Your task to perform on an android device: Turn off the flashlight Image 0: 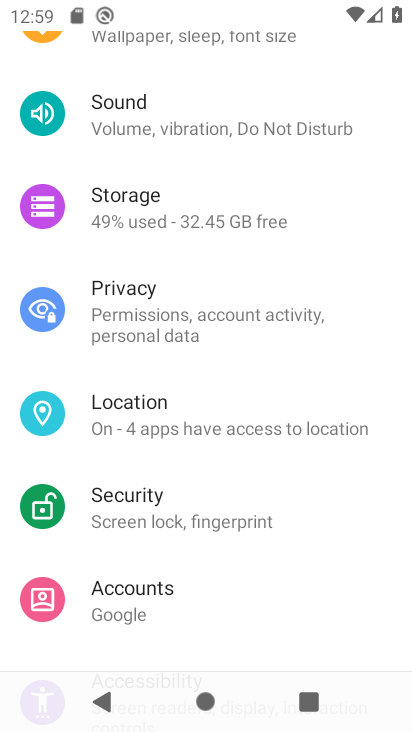
Step 0: press home button
Your task to perform on an android device: Turn off the flashlight Image 1: 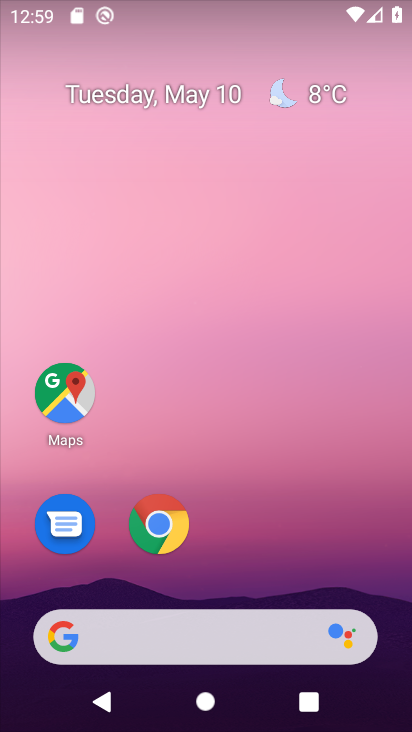
Step 1: drag from (279, 464) to (258, 36)
Your task to perform on an android device: Turn off the flashlight Image 2: 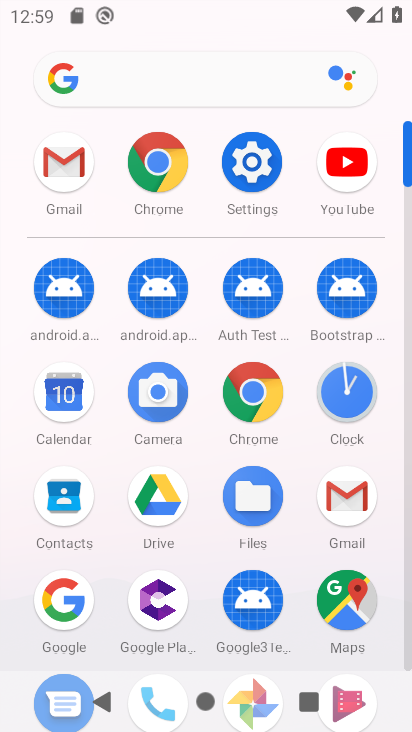
Step 2: click (259, 157)
Your task to perform on an android device: Turn off the flashlight Image 3: 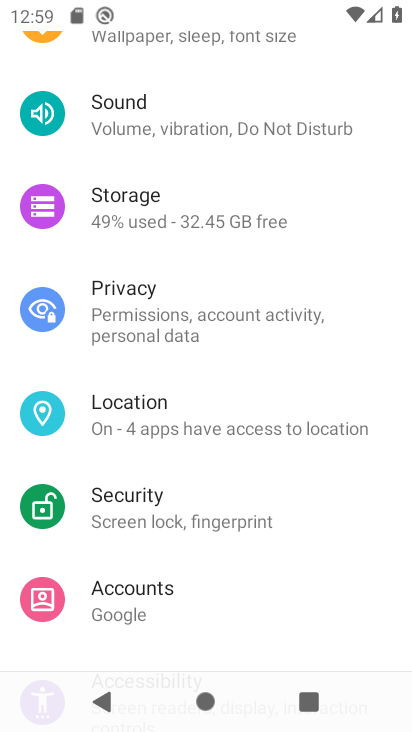
Step 3: drag from (239, 126) to (281, 598)
Your task to perform on an android device: Turn off the flashlight Image 4: 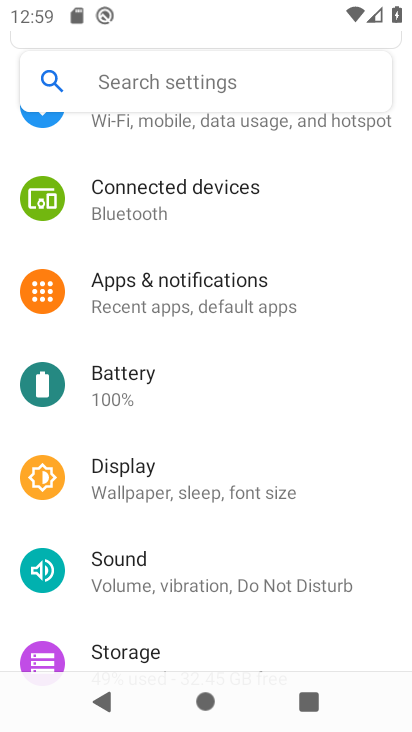
Step 4: drag from (208, 233) to (221, 558)
Your task to perform on an android device: Turn off the flashlight Image 5: 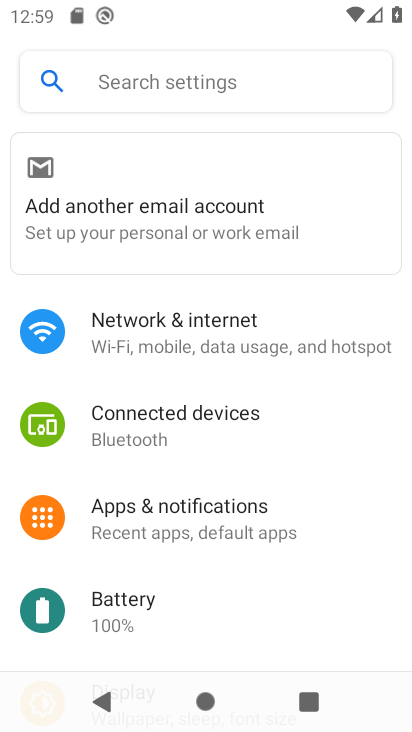
Step 5: click (217, 78)
Your task to perform on an android device: Turn off the flashlight Image 6: 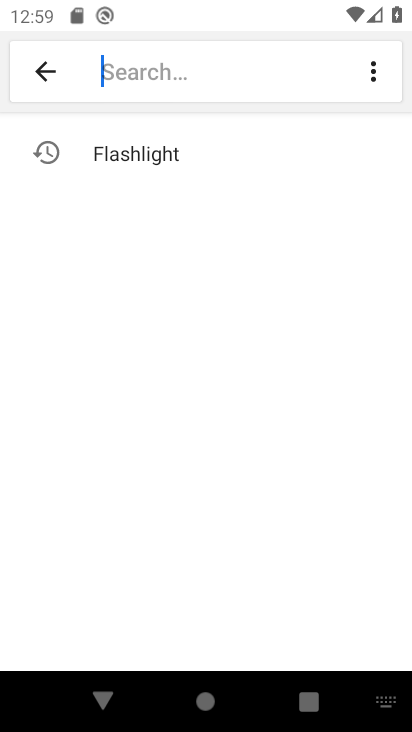
Step 6: click (162, 145)
Your task to perform on an android device: Turn off the flashlight Image 7: 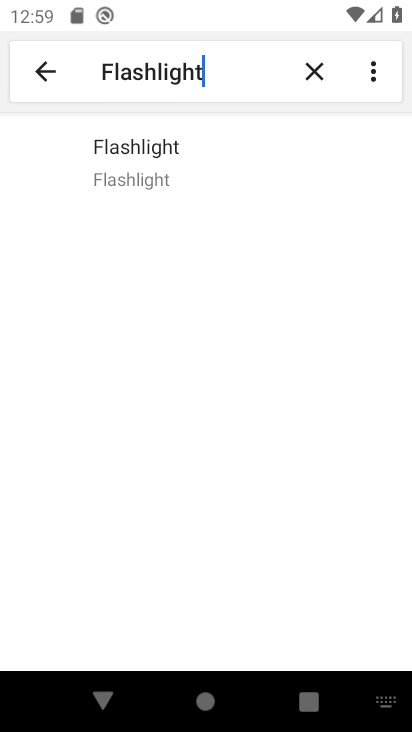
Step 7: task complete